Your task to perform on an android device: Open Maps and search for coffee Image 0: 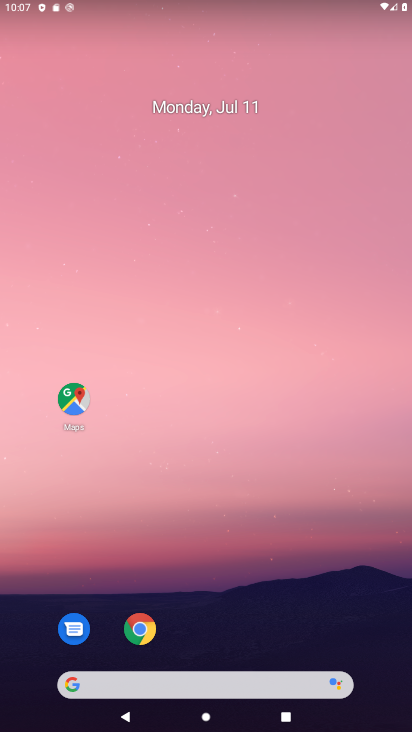
Step 0: click (73, 405)
Your task to perform on an android device: Open Maps and search for coffee Image 1: 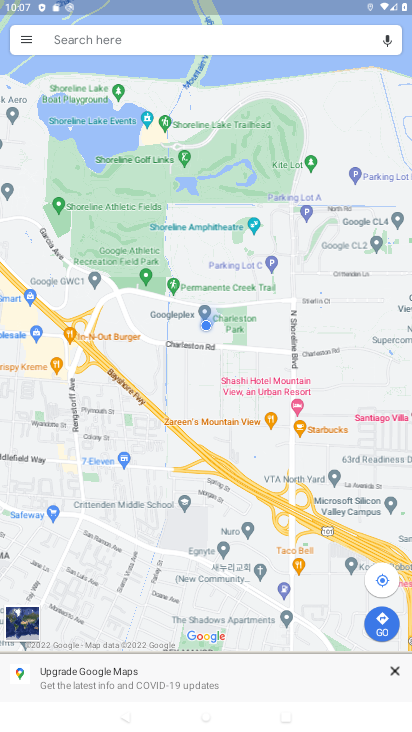
Step 1: click (174, 39)
Your task to perform on an android device: Open Maps and search for coffee Image 2: 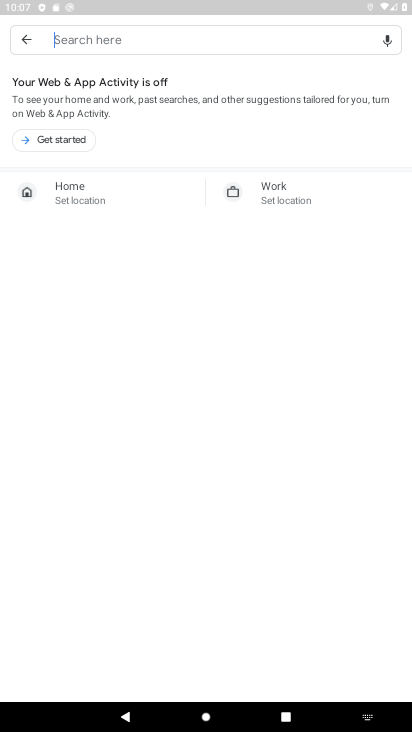
Step 2: type "coffee"
Your task to perform on an android device: Open Maps and search for coffee Image 3: 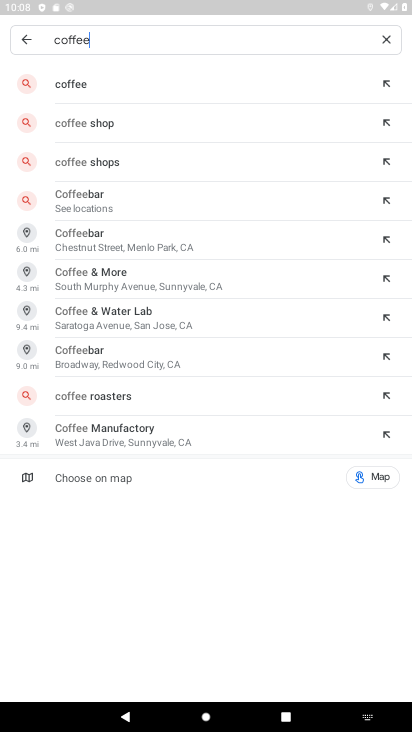
Step 3: click (102, 82)
Your task to perform on an android device: Open Maps and search for coffee Image 4: 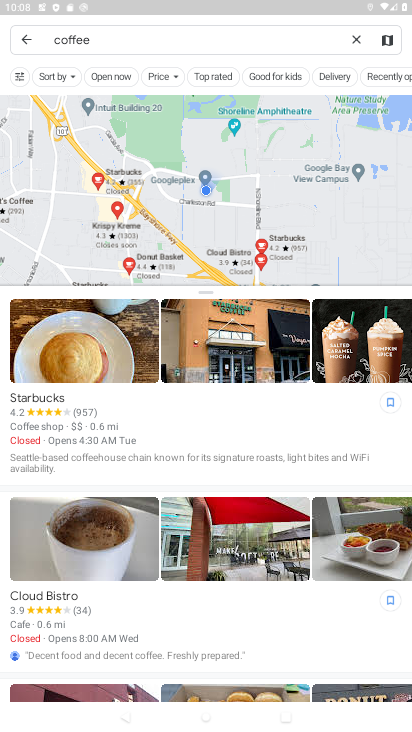
Step 4: task complete